Your task to perform on an android device: search for starred emails in the gmail app Image 0: 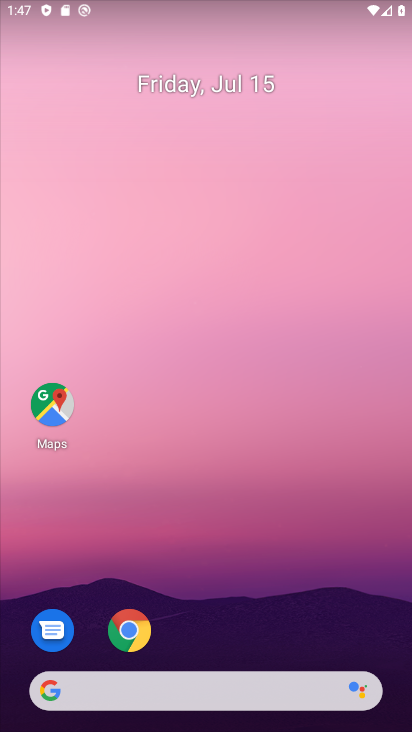
Step 0: drag from (203, 616) to (207, 130)
Your task to perform on an android device: search for starred emails in the gmail app Image 1: 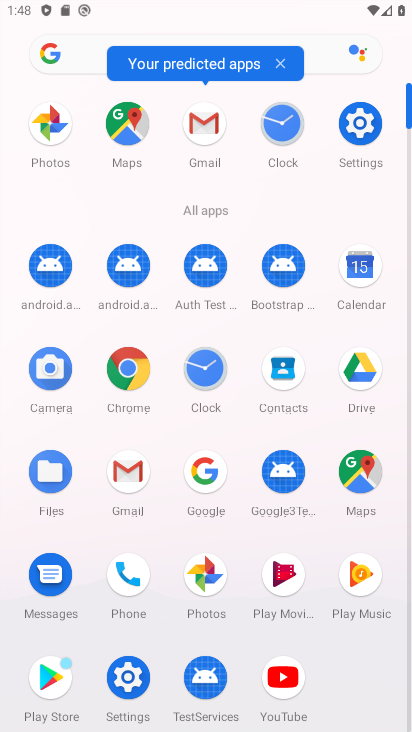
Step 1: click (205, 154)
Your task to perform on an android device: search for starred emails in the gmail app Image 2: 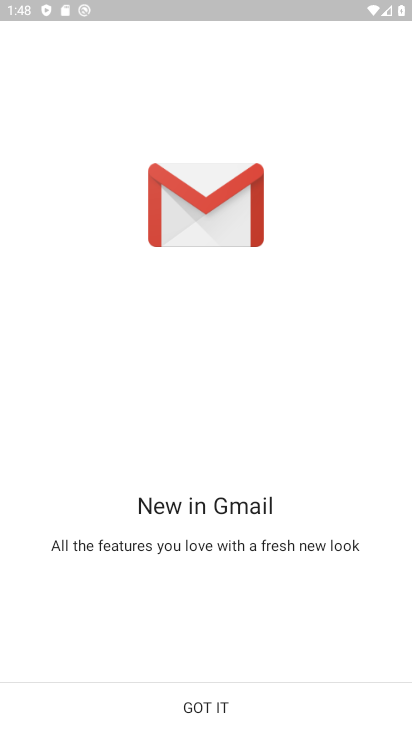
Step 2: click (198, 710)
Your task to perform on an android device: search for starred emails in the gmail app Image 3: 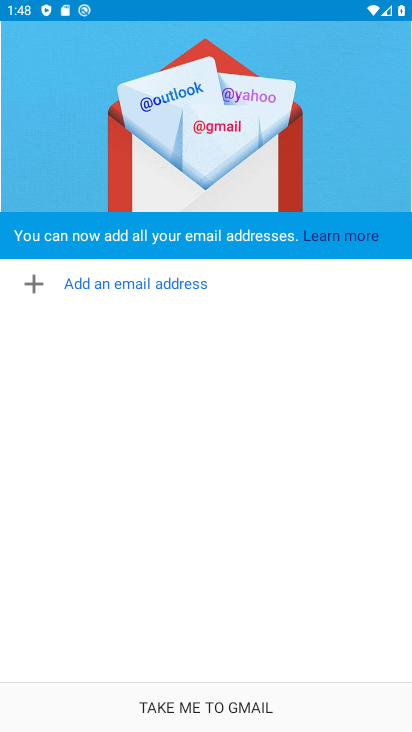
Step 3: click (198, 710)
Your task to perform on an android device: search for starred emails in the gmail app Image 4: 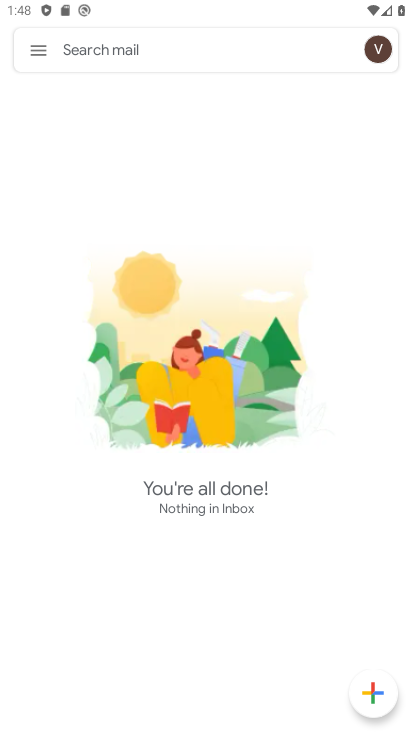
Step 4: click (30, 44)
Your task to perform on an android device: search for starred emails in the gmail app Image 5: 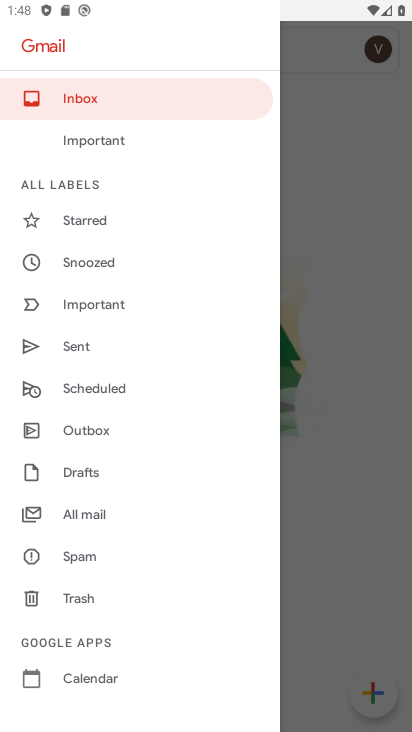
Step 5: click (113, 224)
Your task to perform on an android device: search for starred emails in the gmail app Image 6: 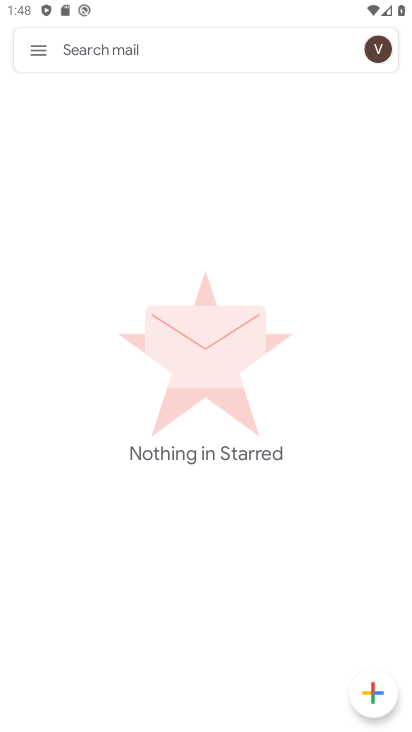
Step 6: task complete